Your task to perform on an android device: turn on javascript in the chrome app Image 0: 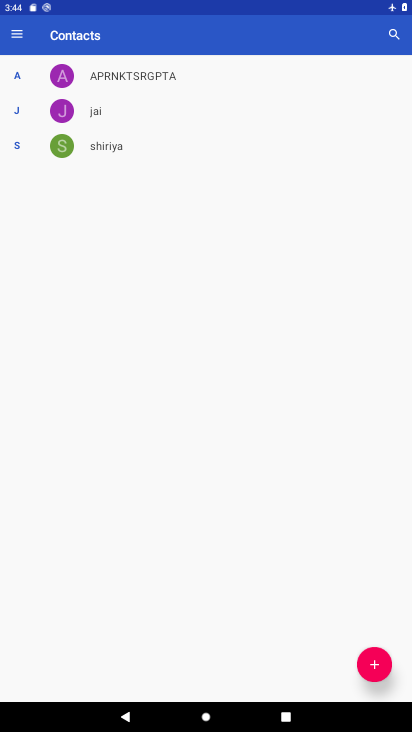
Step 0: press home button
Your task to perform on an android device: turn on javascript in the chrome app Image 1: 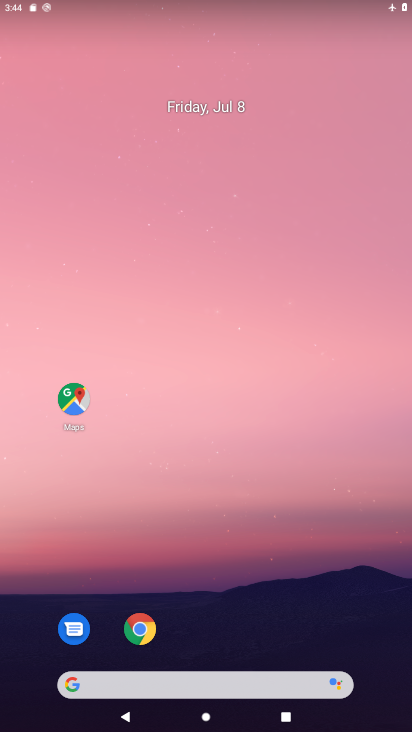
Step 1: drag from (258, 575) to (266, 247)
Your task to perform on an android device: turn on javascript in the chrome app Image 2: 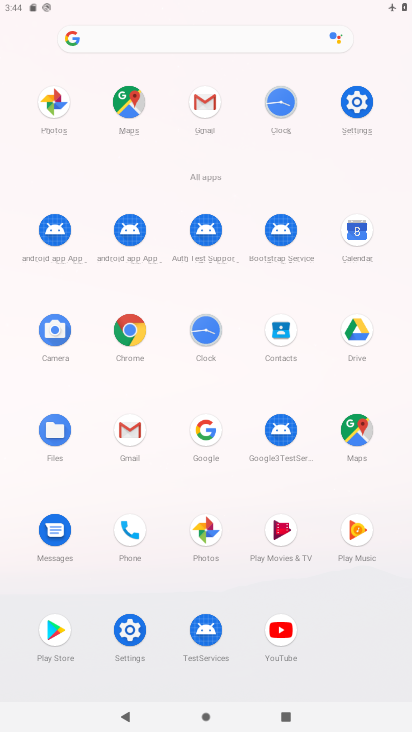
Step 2: click (137, 329)
Your task to perform on an android device: turn on javascript in the chrome app Image 3: 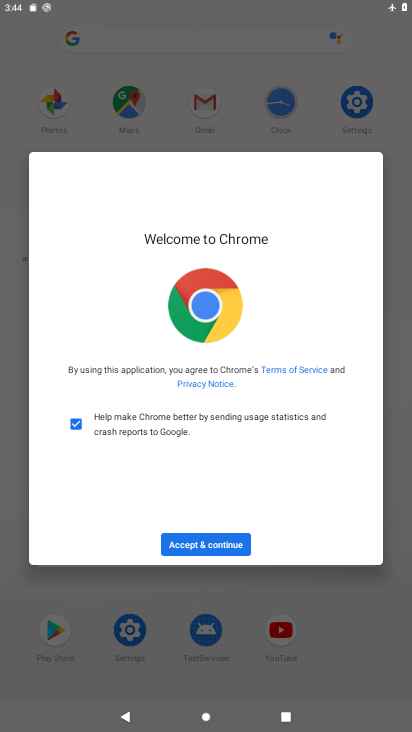
Step 3: click (212, 534)
Your task to perform on an android device: turn on javascript in the chrome app Image 4: 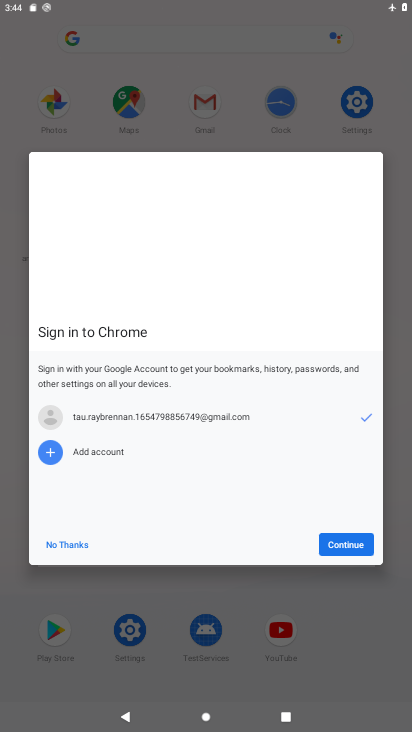
Step 4: click (328, 546)
Your task to perform on an android device: turn on javascript in the chrome app Image 5: 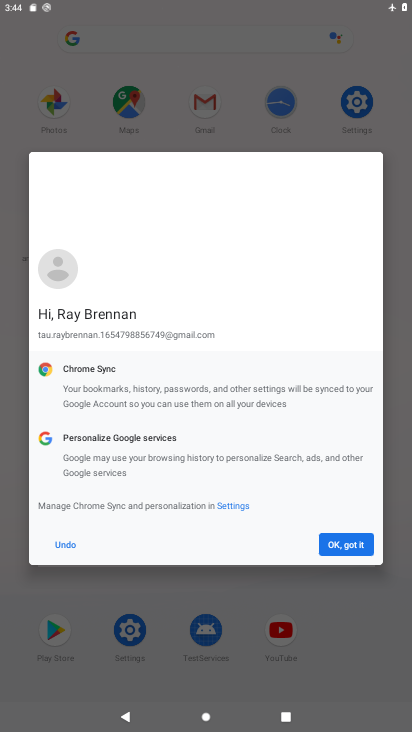
Step 5: click (347, 553)
Your task to perform on an android device: turn on javascript in the chrome app Image 6: 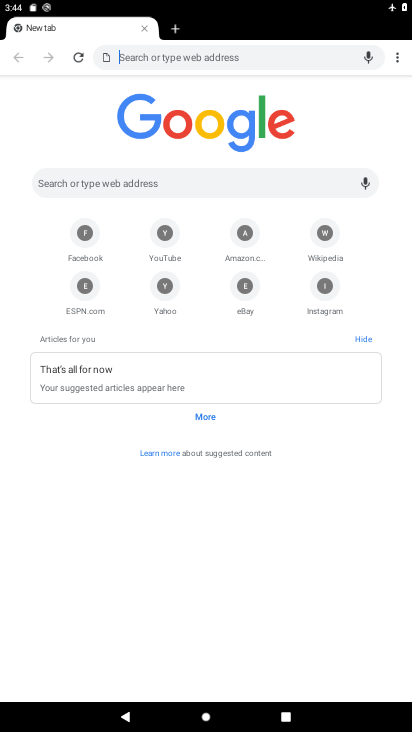
Step 6: click (400, 62)
Your task to perform on an android device: turn on javascript in the chrome app Image 7: 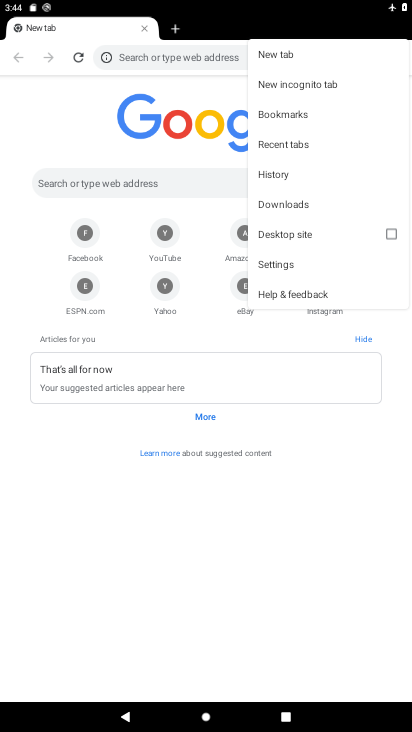
Step 7: click (292, 261)
Your task to perform on an android device: turn on javascript in the chrome app Image 8: 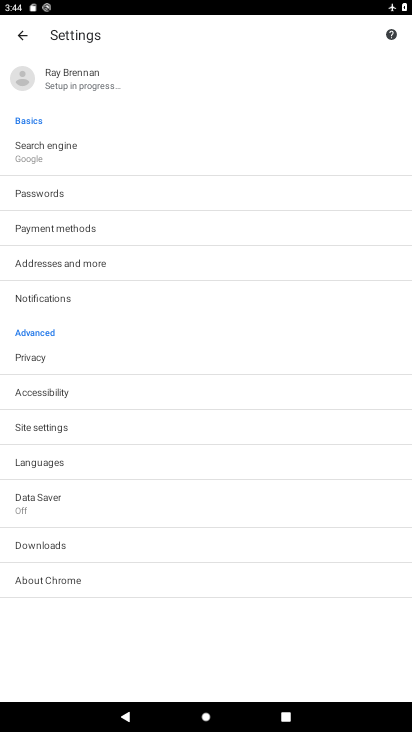
Step 8: click (82, 428)
Your task to perform on an android device: turn on javascript in the chrome app Image 9: 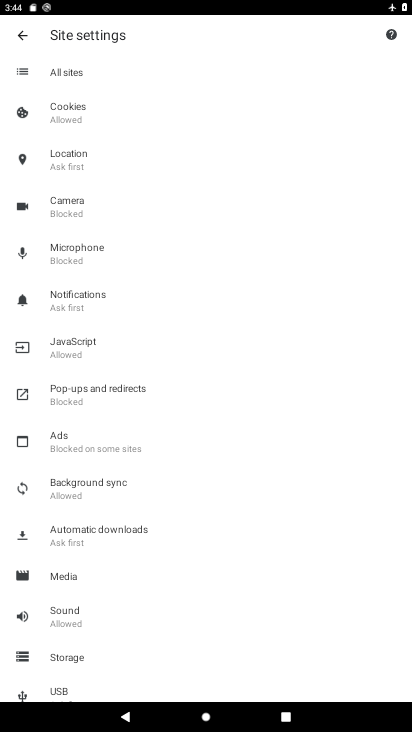
Step 9: click (87, 356)
Your task to perform on an android device: turn on javascript in the chrome app Image 10: 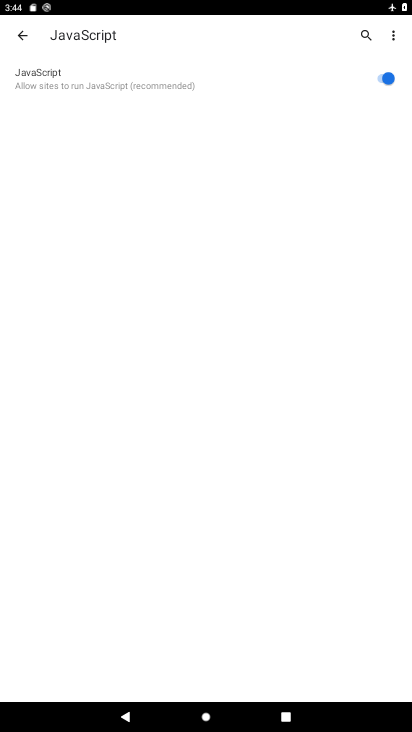
Step 10: task complete